Your task to perform on an android device: What is the news today? Image 0: 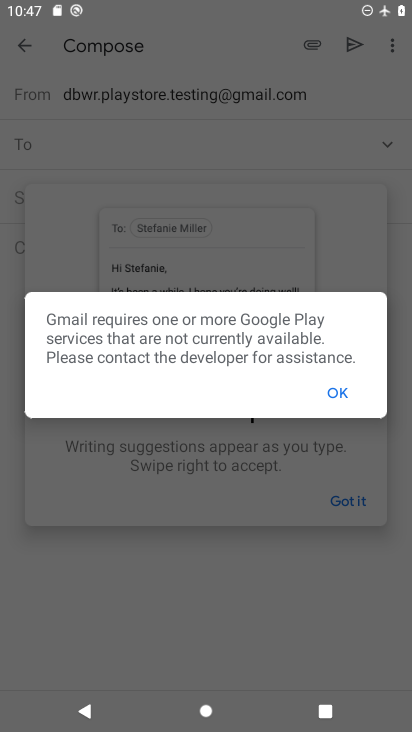
Step 0: press home button
Your task to perform on an android device: What is the news today? Image 1: 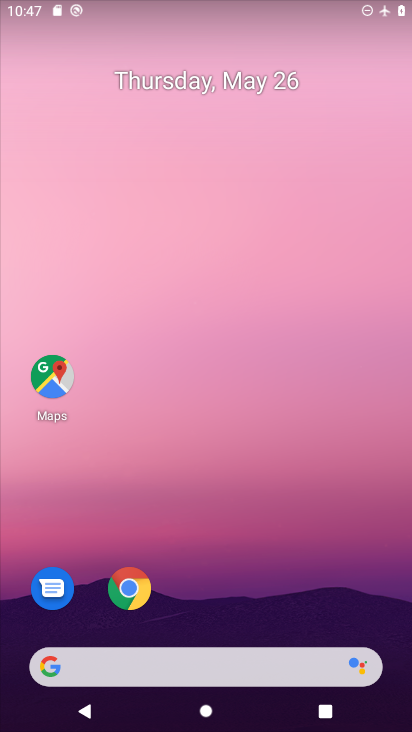
Step 1: task complete